Your task to perform on an android device: Open Youtube and go to the subscriptions tab Image 0: 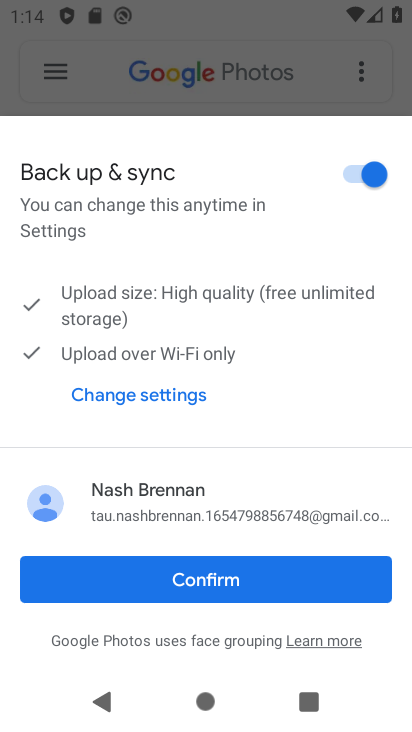
Step 0: press home button
Your task to perform on an android device: Open Youtube and go to the subscriptions tab Image 1: 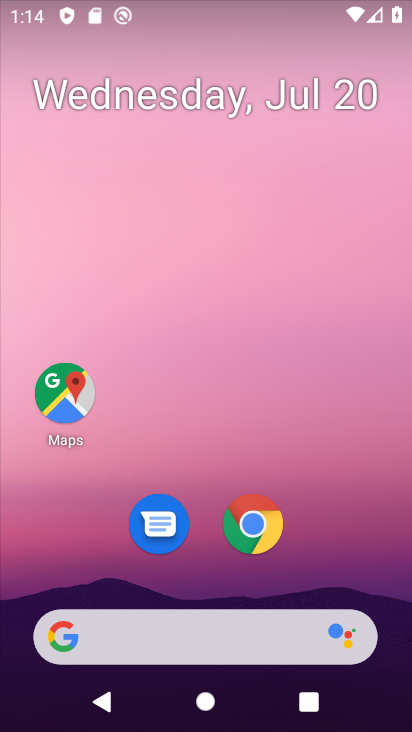
Step 1: drag from (317, 559) to (346, 0)
Your task to perform on an android device: Open Youtube and go to the subscriptions tab Image 2: 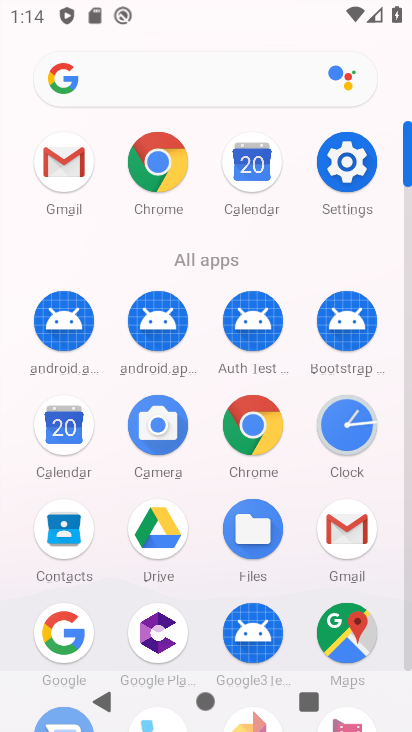
Step 2: drag from (300, 549) to (307, 115)
Your task to perform on an android device: Open Youtube and go to the subscriptions tab Image 3: 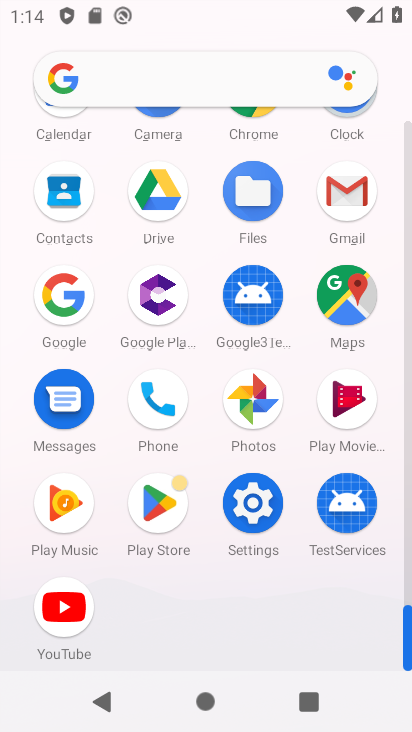
Step 3: click (62, 613)
Your task to perform on an android device: Open Youtube and go to the subscriptions tab Image 4: 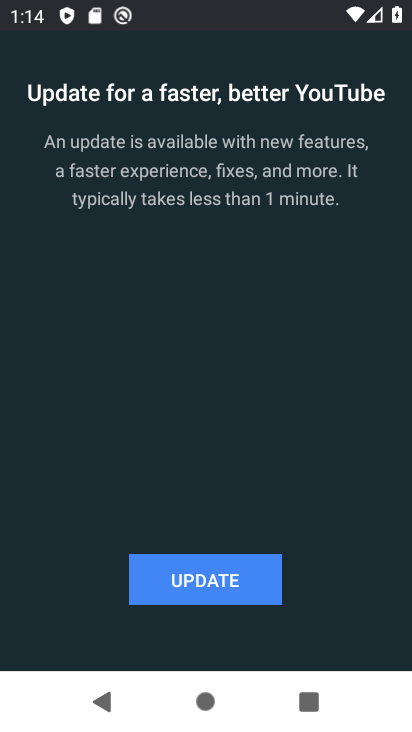
Step 4: click (218, 582)
Your task to perform on an android device: Open Youtube and go to the subscriptions tab Image 5: 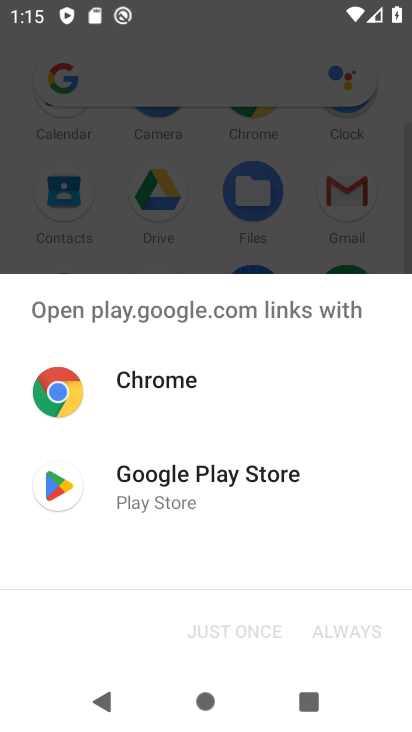
Step 5: click (168, 485)
Your task to perform on an android device: Open Youtube and go to the subscriptions tab Image 6: 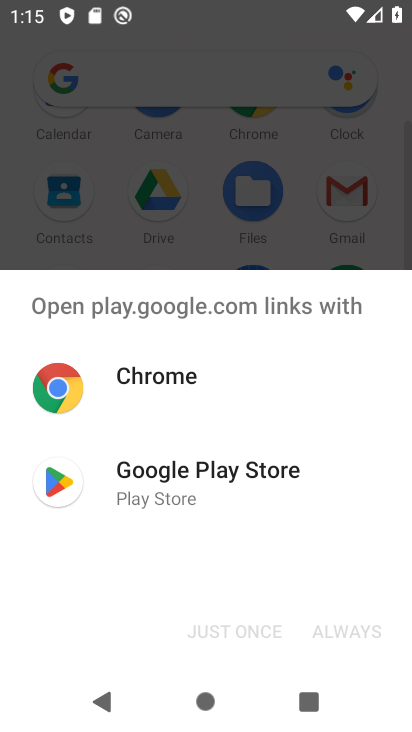
Step 6: click (183, 487)
Your task to perform on an android device: Open Youtube and go to the subscriptions tab Image 7: 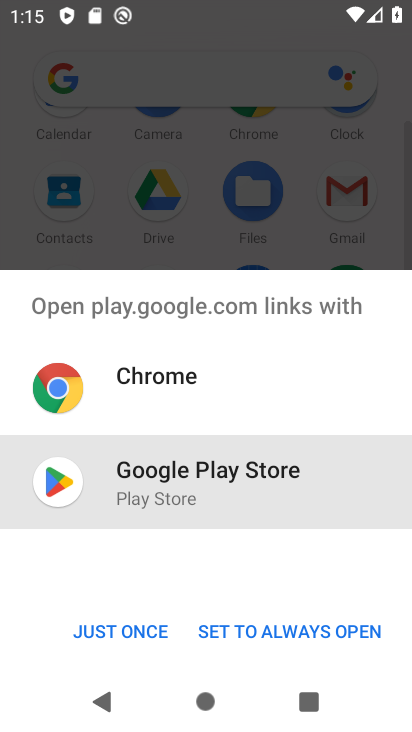
Step 7: click (140, 626)
Your task to perform on an android device: Open Youtube and go to the subscriptions tab Image 8: 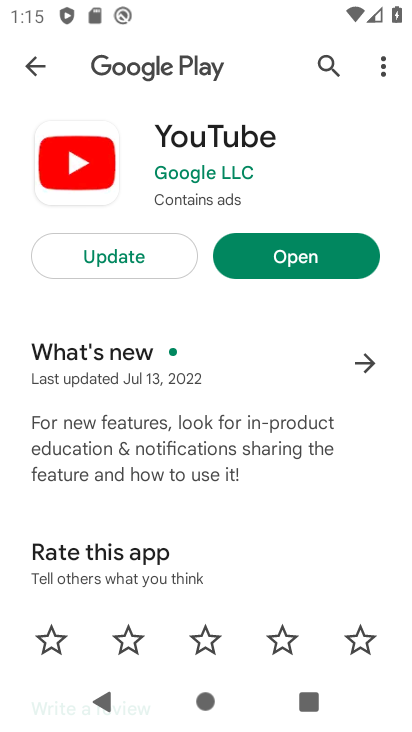
Step 8: click (157, 250)
Your task to perform on an android device: Open Youtube and go to the subscriptions tab Image 9: 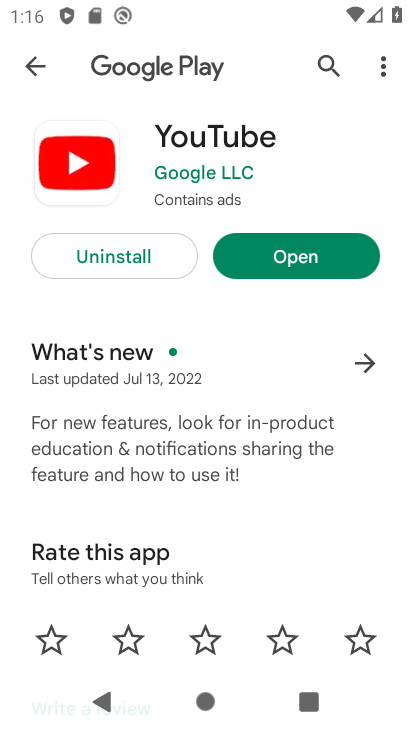
Step 9: click (348, 267)
Your task to perform on an android device: Open Youtube and go to the subscriptions tab Image 10: 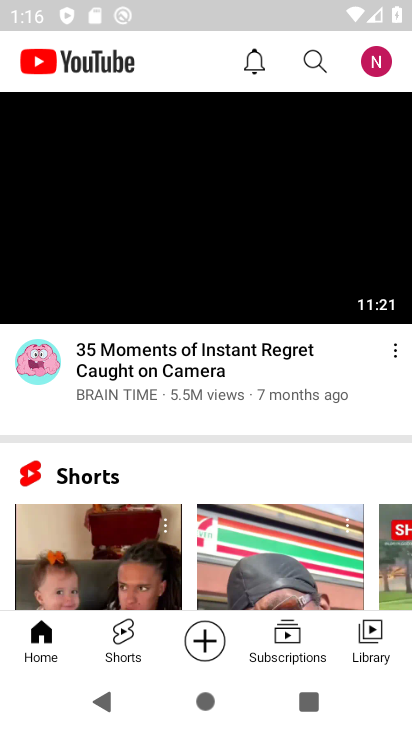
Step 10: click (292, 634)
Your task to perform on an android device: Open Youtube and go to the subscriptions tab Image 11: 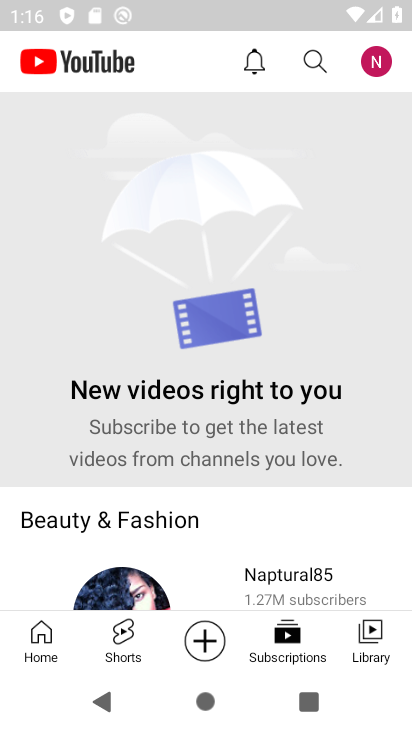
Step 11: task complete